Your task to perform on an android device: Go to internet settings Image 0: 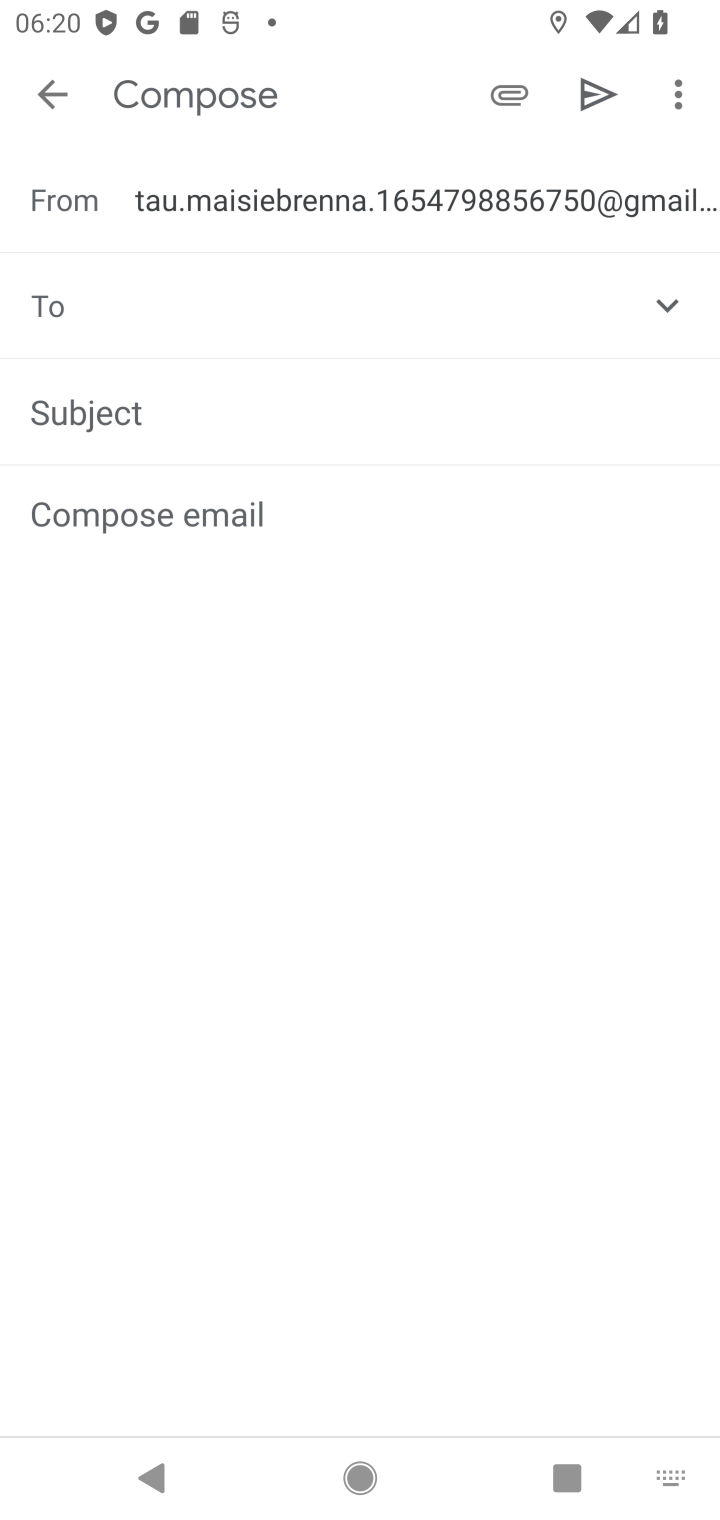
Step 0: press home button
Your task to perform on an android device: Go to internet settings Image 1: 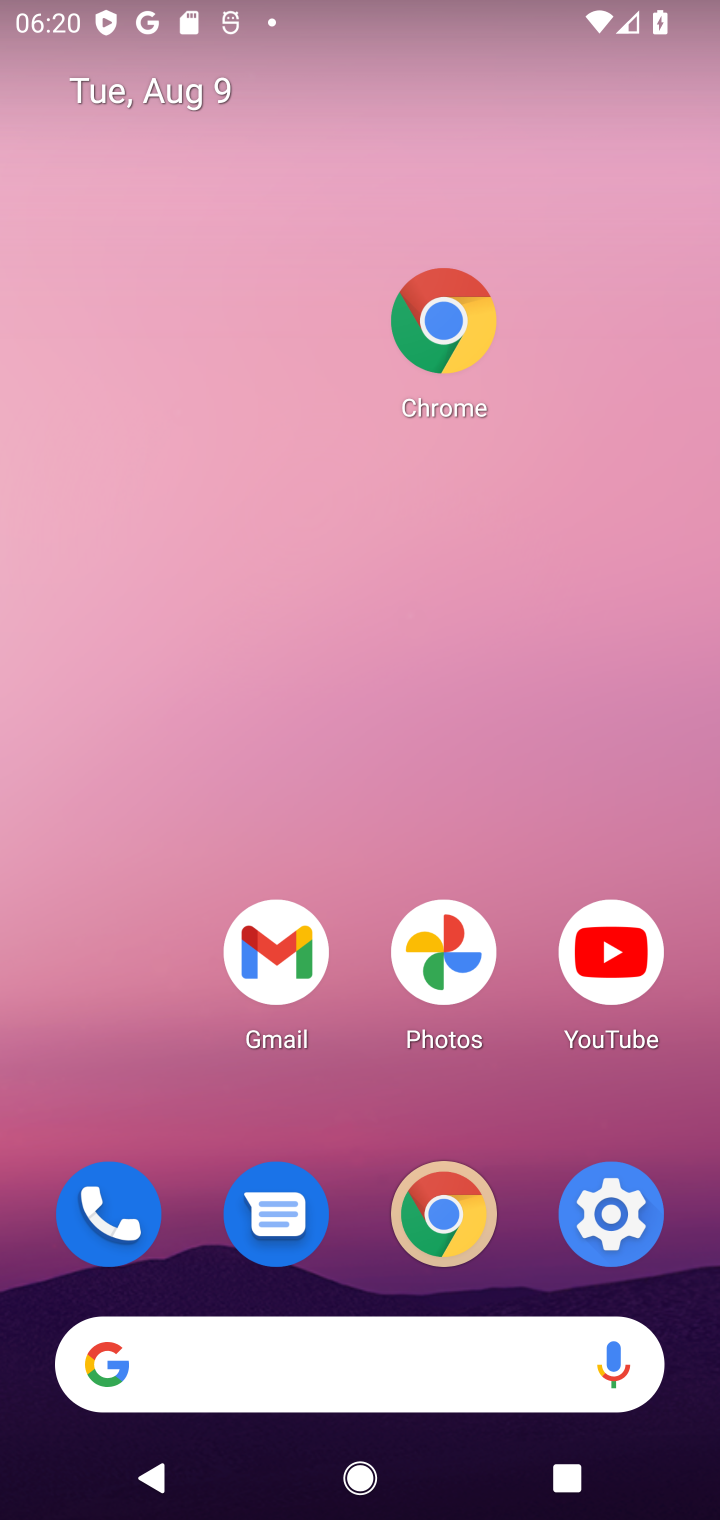
Step 1: click (608, 1225)
Your task to perform on an android device: Go to internet settings Image 2: 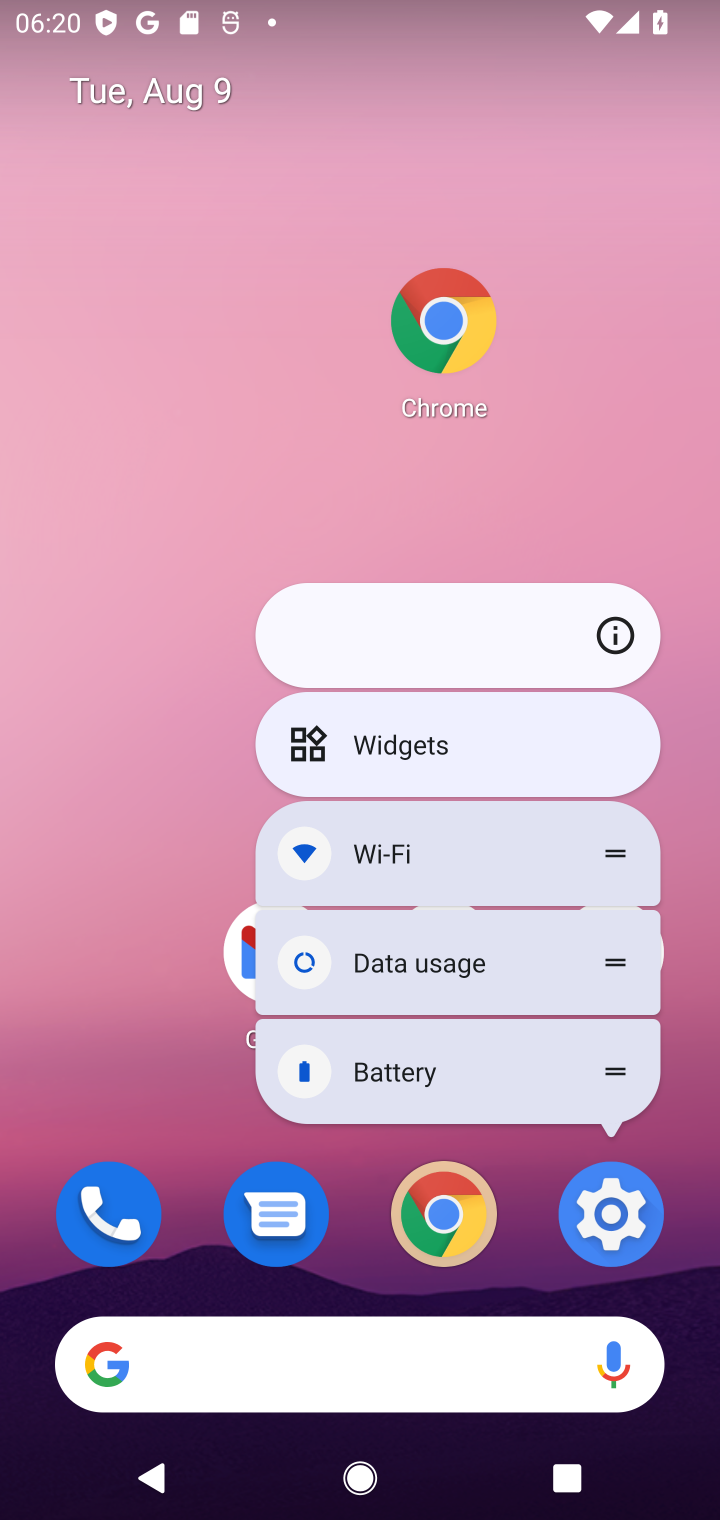
Step 2: click (629, 1242)
Your task to perform on an android device: Go to internet settings Image 3: 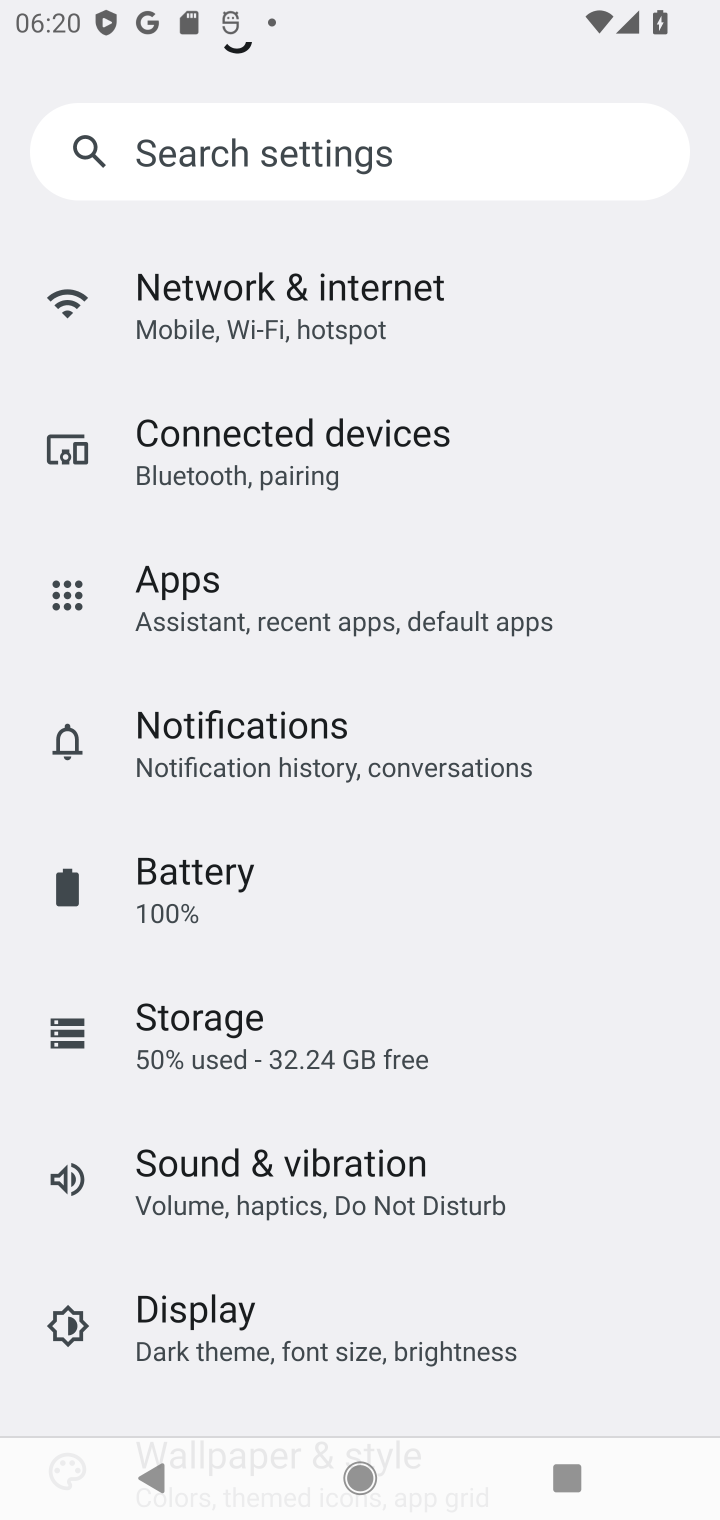
Step 3: click (322, 317)
Your task to perform on an android device: Go to internet settings Image 4: 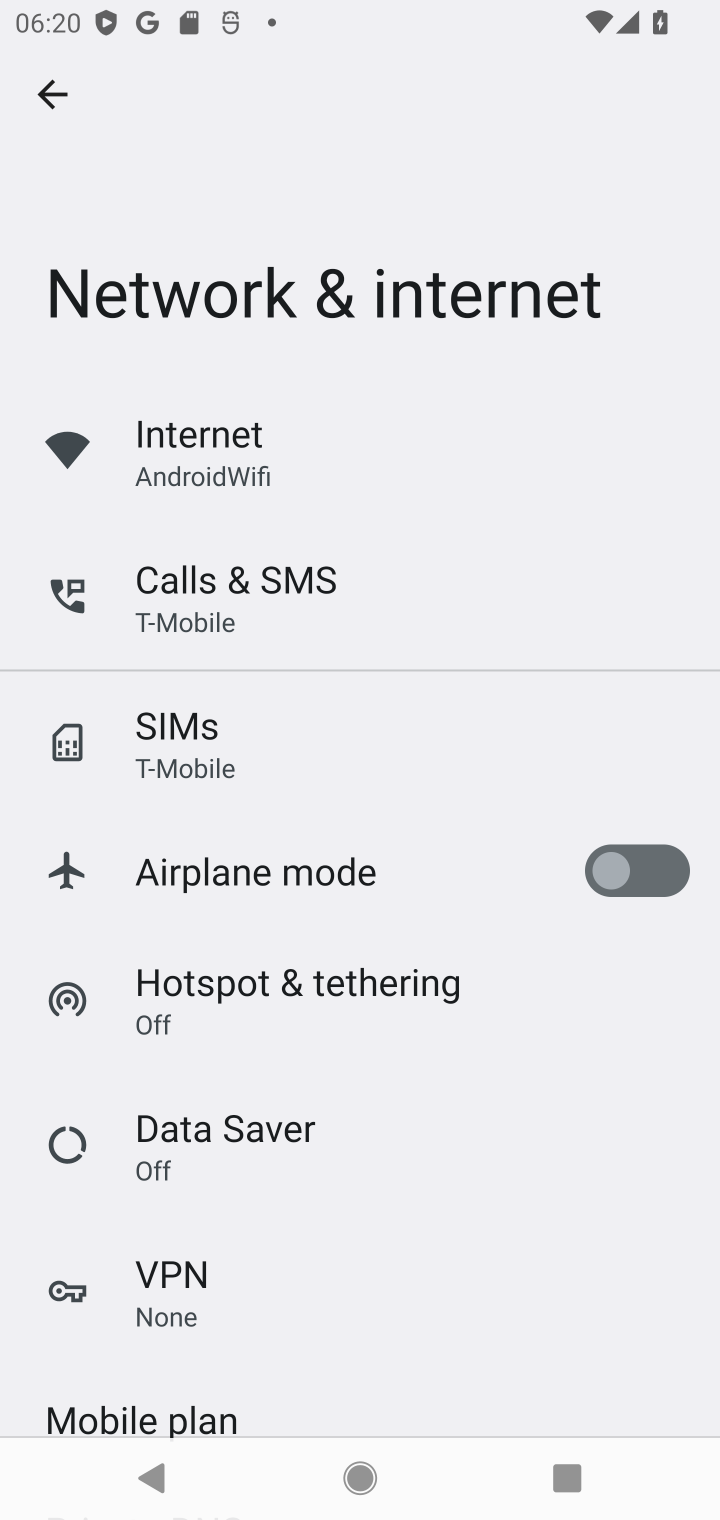
Step 4: click (190, 426)
Your task to perform on an android device: Go to internet settings Image 5: 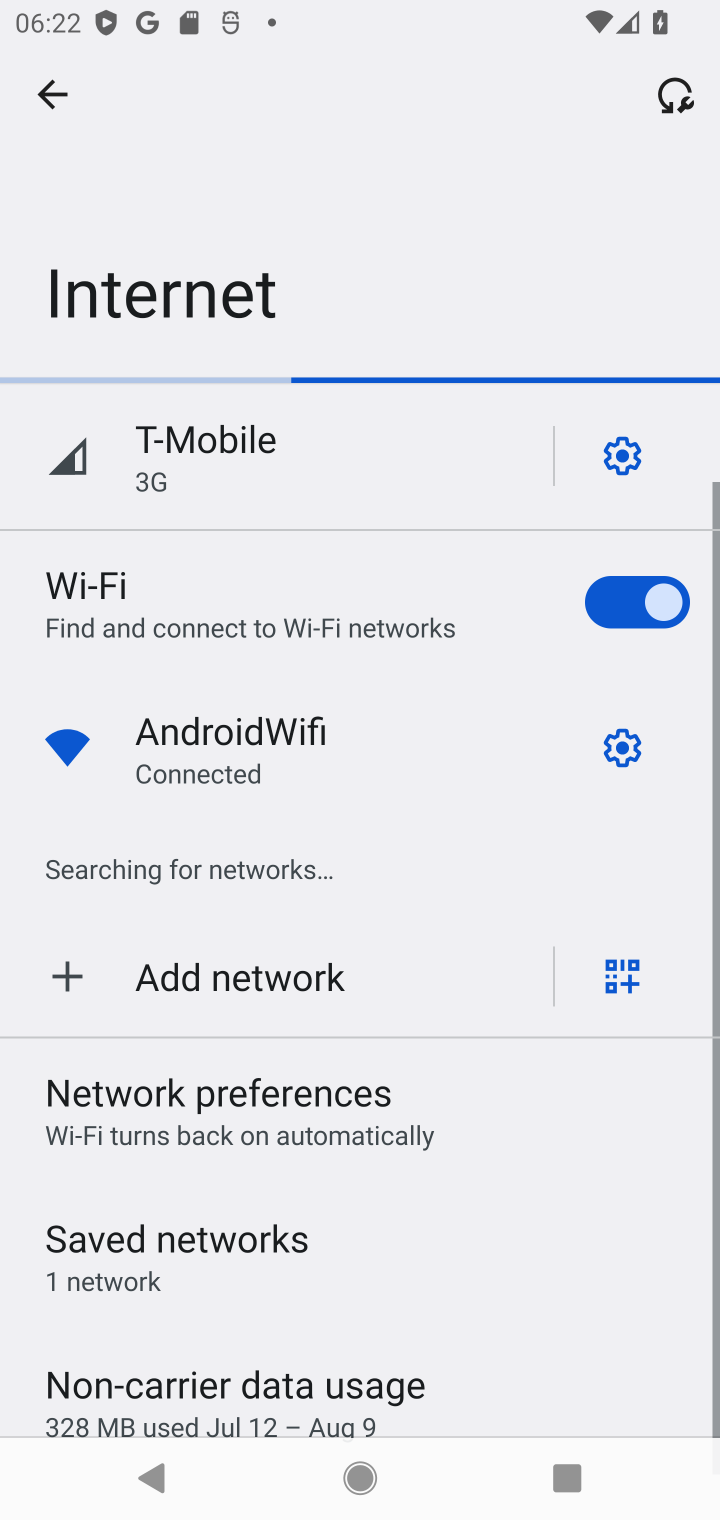
Step 5: task complete